Your task to perform on an android device: Go to internet settings Image 0: 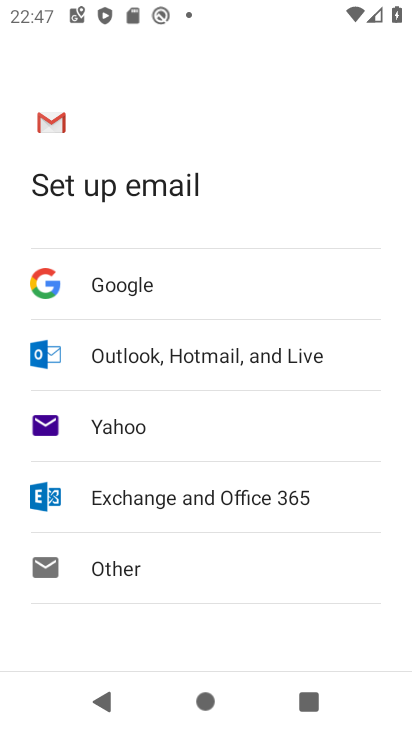
Step 0: press home button
Your task to perform on an android device: Go to internet settings Image 1: 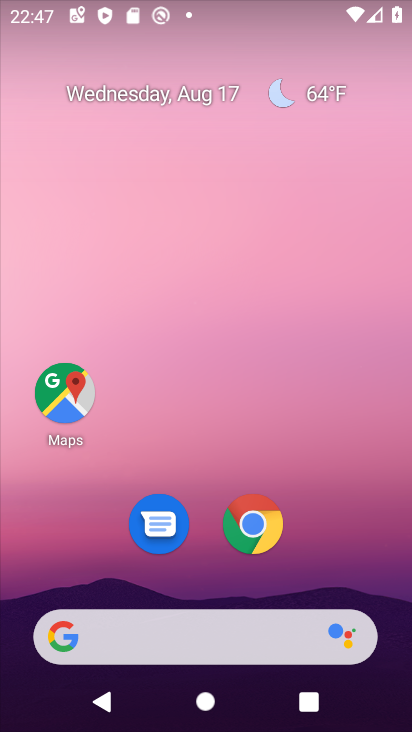
Step 1: drag from (359, 466) to (336, 1)
Your task to perform on an android device: Go to internet settings Image 2: 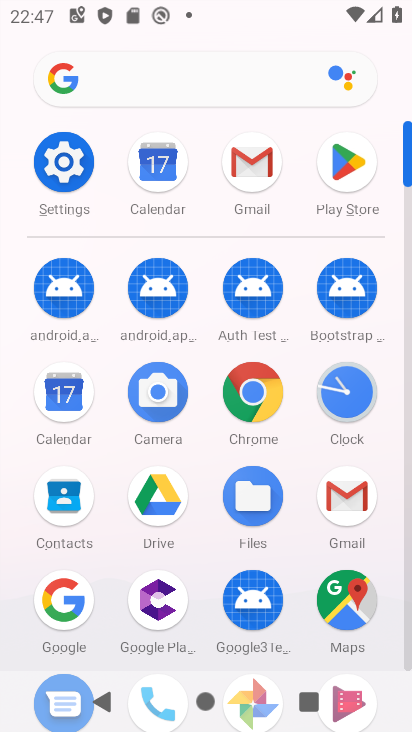
Step 2: click (64, 158)
Your task to perform on an android device: Go to internet settings Image 3: 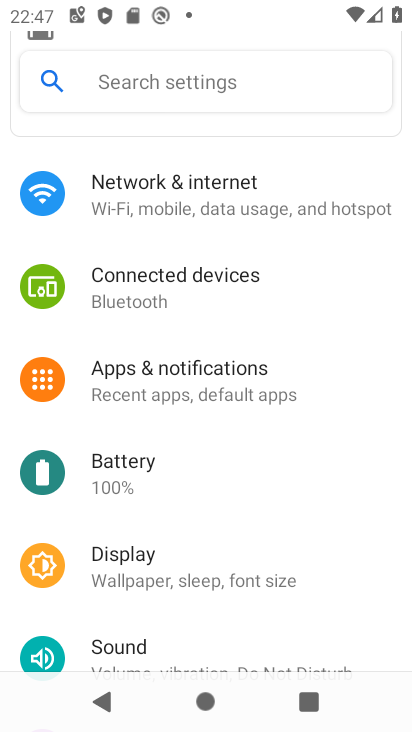
Step 3: click (285, 198)
Your task to perform on an android device: Go to internet settings Image 4: 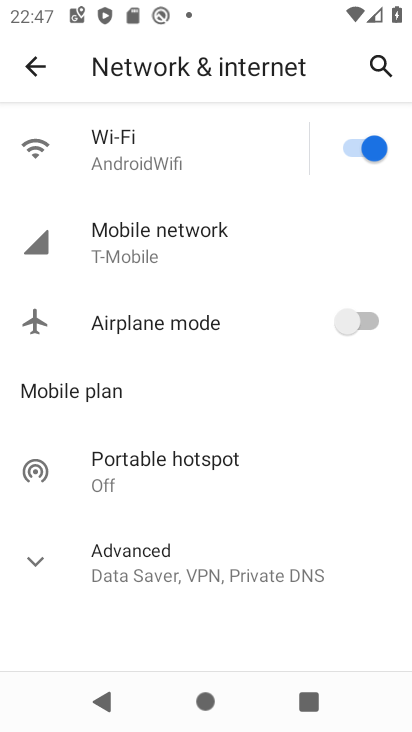
Step 4: task complete